Your task to perform on an android device: turn off smart reply in the gmail app Image 0: 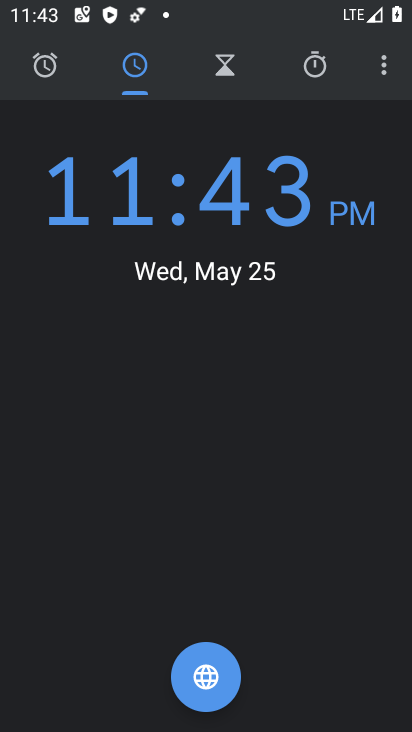
Step 0: press home button
Your task to perform on an android device: turn off smart reply in the gmail app Image 1: 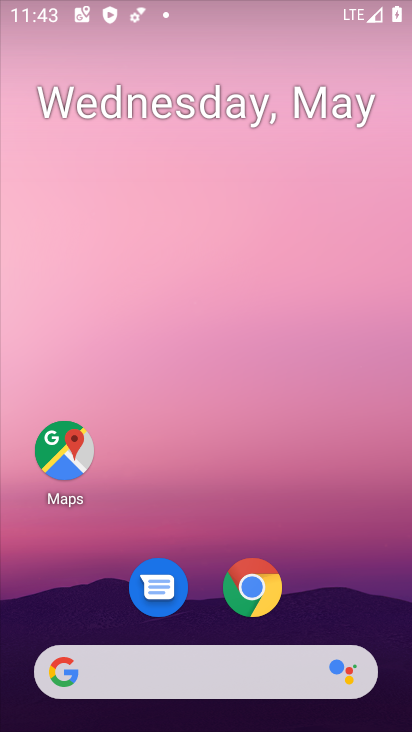
Step 1: drag from (336, 642) to (301, 100)
Your task to perform on an android device: turn off smart reply in the gmail app Image 2: 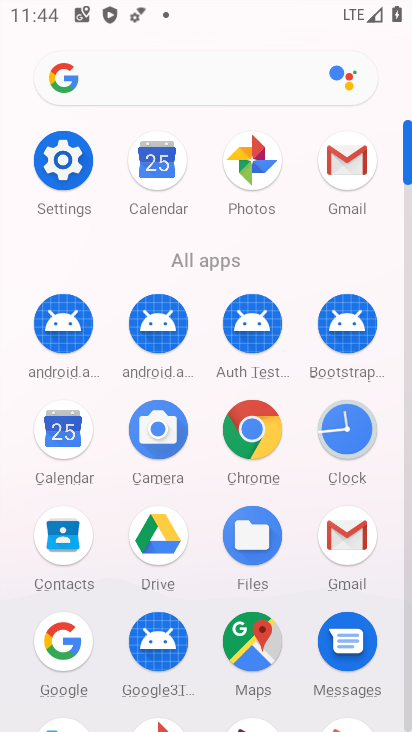
Step 2: click (350, 158)
Your task to perform on an android device: turn off smart reply in the gmail app Image 3: 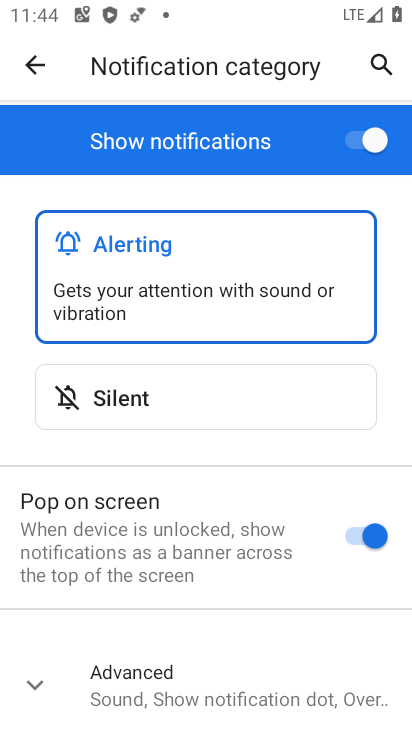
Step 3: click (37, 65)
Your task to perform on an android device: turn off smart reply in the gmail app Image 4: 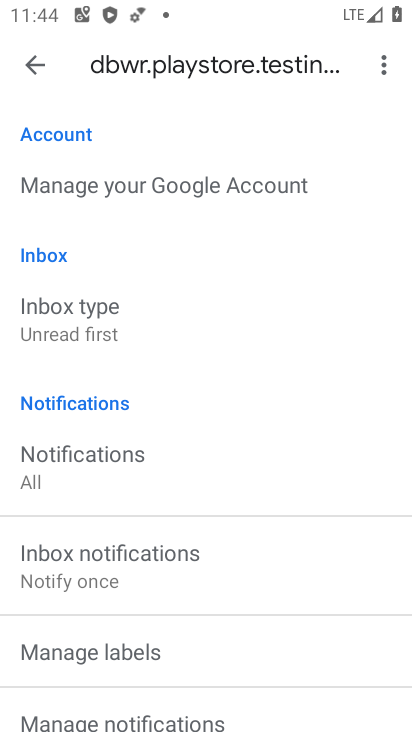
Step 4: drag from (211, 677) to (134, 121)
Your task to perform on an android device: turn off smart reply in the gmail app Image 5: 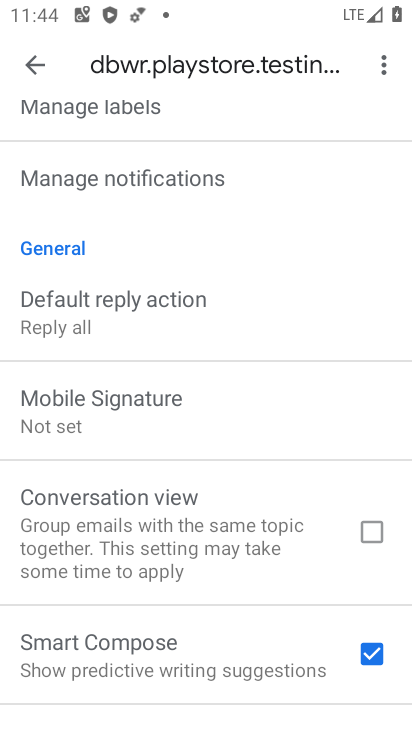
Step 5: drag from (234, 604) to (213, 267)
Your task to perform on an android device: turn off smart reply in the gmail app Image 6: 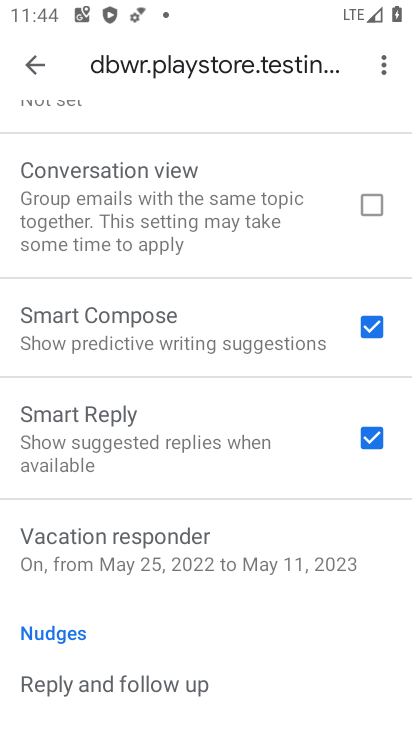
Step 6: click (371, 434)
Your task to perform on an android device: turn off smart reply in the gmail app Image 7: 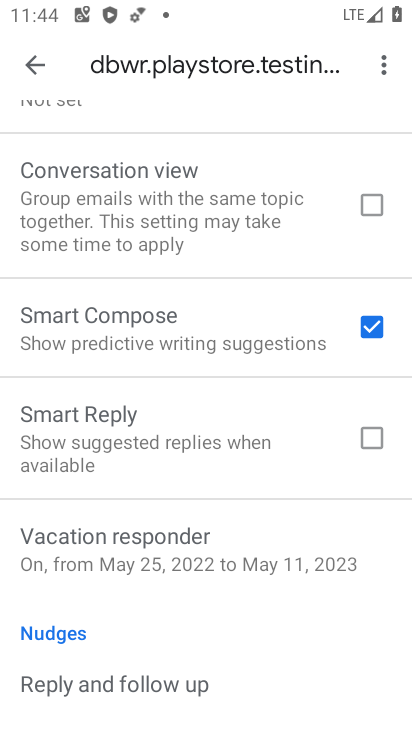
Step 7: task complete